Your task to perform on an android device: install app "VLC for Android" Image 0: 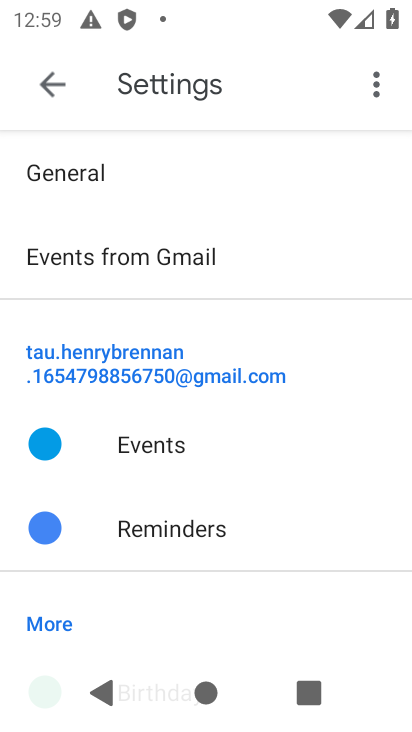
Step 0: press home button
Your task to perform on an android device: install app "VLC for Android" Image 1: 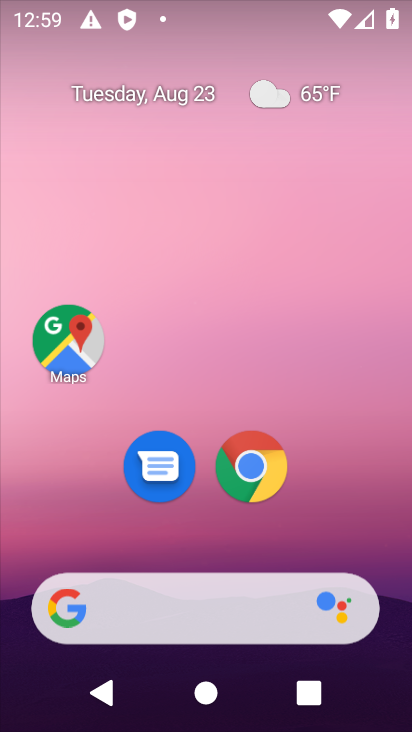
Step 1: drag from (233, 575) to (232, 134)
Your task to perform on an android device: install app "VLC for Android" Image 2: 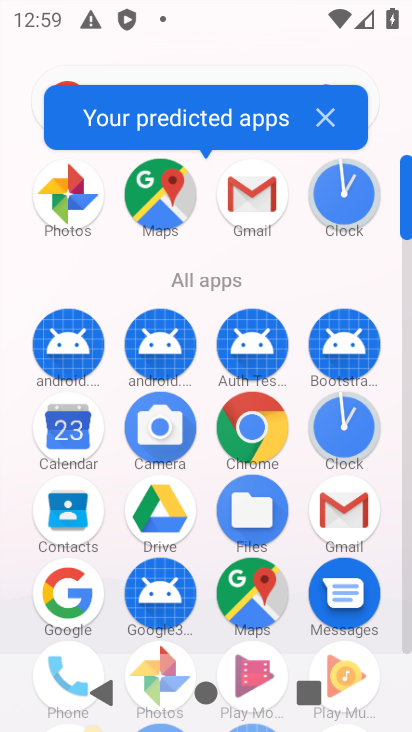
Step 2: drag from (231, 596) to (256, 126)
Your task to perform on an android device: install app "VLC for Android" Image 3: 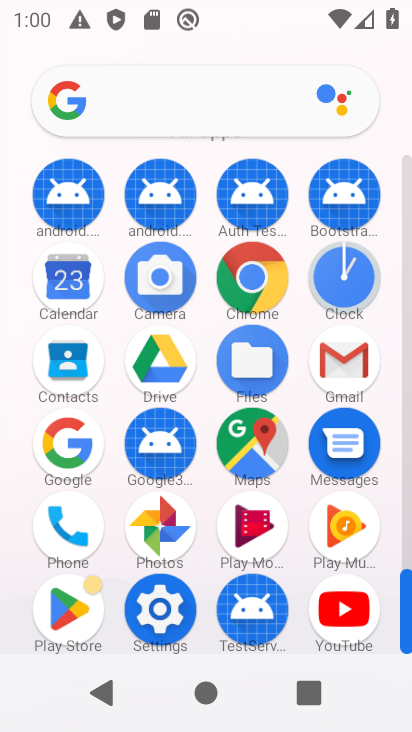
Step 3: click (83, 614)
Your task to perform on an android device: install app "VLC for Android" Image 4: 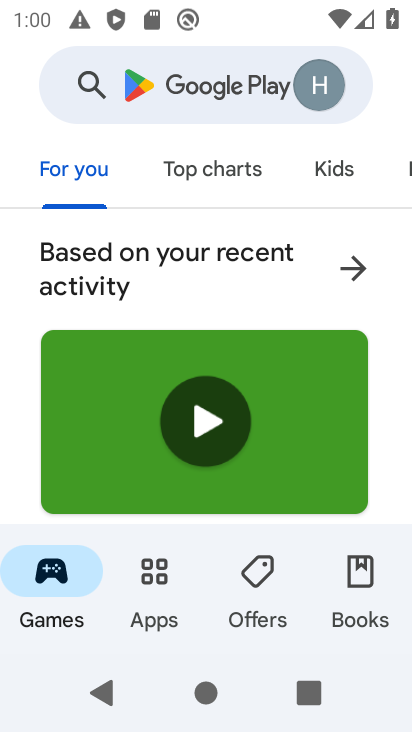
Step 4: click (155, 564)
Your task to perform on an android device: install app "VLC for Android" Image 5: 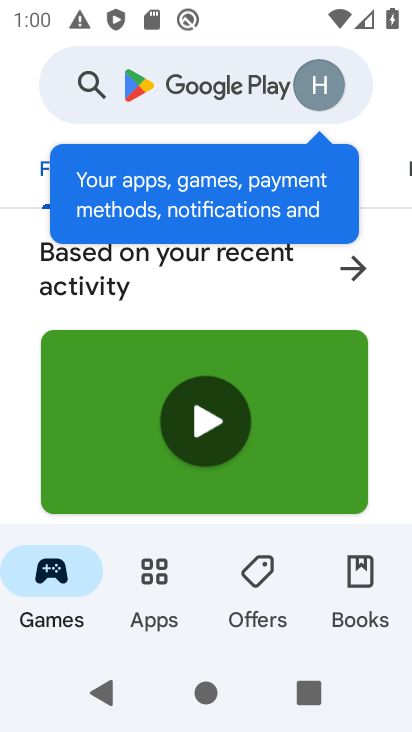
Step 5: click (184, 96)
Your task to perform on an android device: install app "VLC for Android" Image 6: 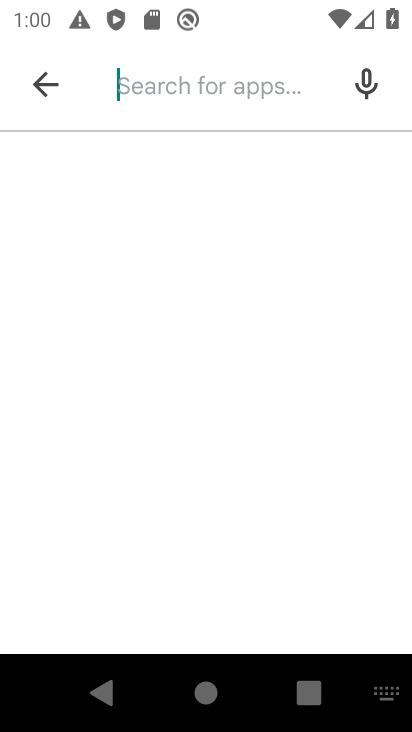
Step 6: type "vlc "
Your task to perform on an android device: install app "VLC for Android" Image 7: 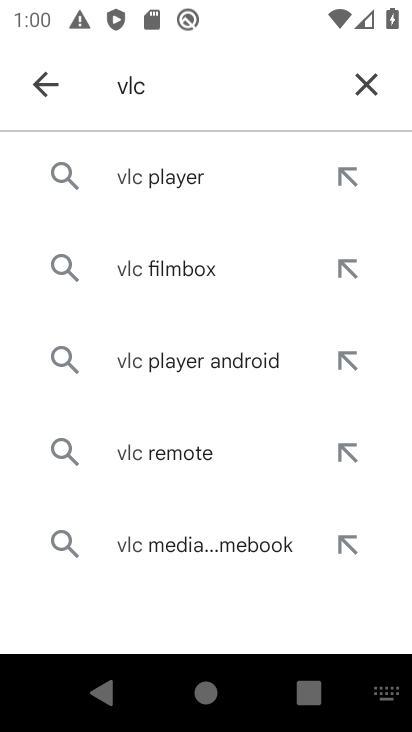
Step 7: click (177, 180)
Your task to perform on an android device: install app "VLC for Android" Image 8: 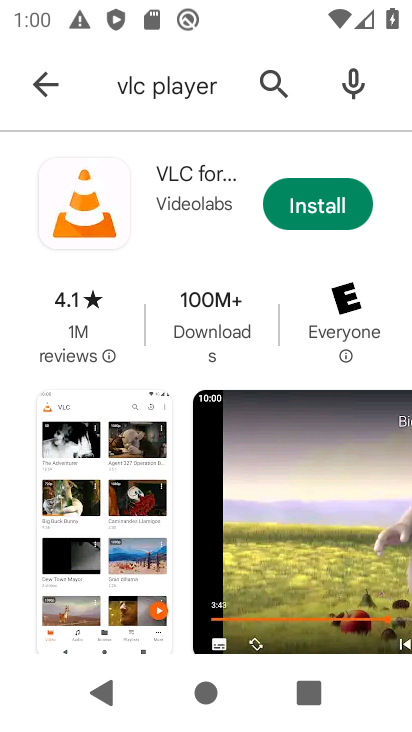
Step 8: click (334, 200)
Your task to perform on an android device: install app "VLC for Android" Image 9: 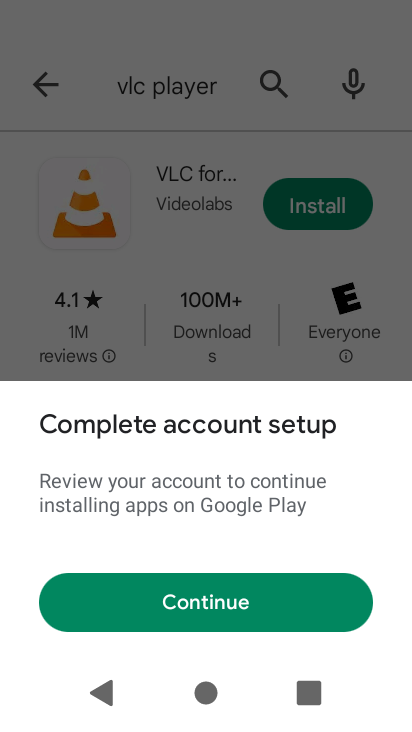
Step 9: task complete